Your task to perform on an android device: allow notifications from all sites in the chrome app Image 0: 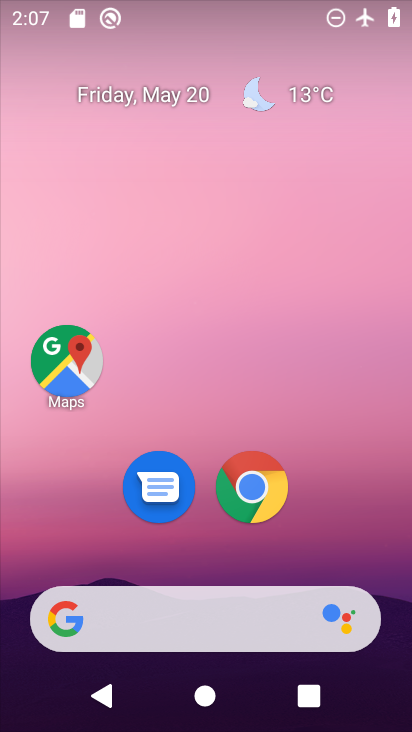
Step 0: press home button
Your task to perform on an android device: allow notifications from all sites in the chrome app Image 1: 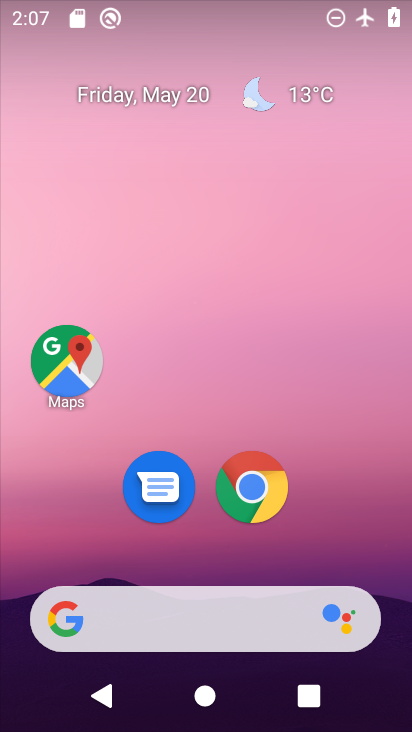
Step 1: press home button
Your task to perform on an android device: allow notifications from all sites in the chrome app Image 2: 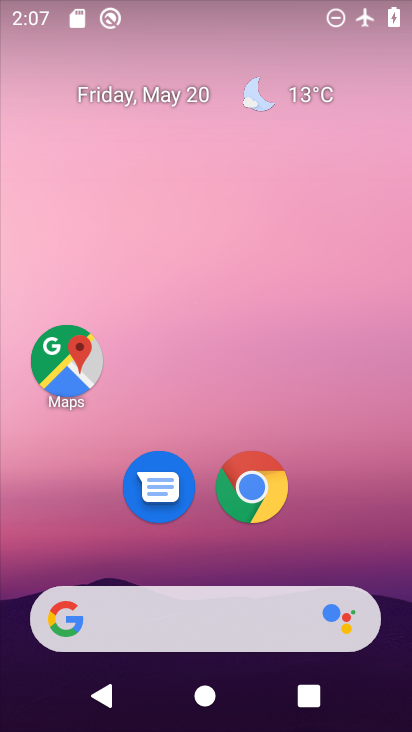
Step 2: click (251, 474)
Your task to perform on an android device: allow notifications from all sites in the chrome app Image 3: 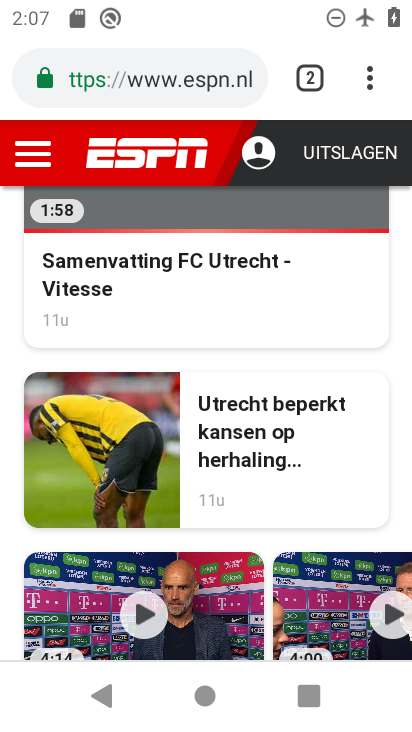
Step 3: click (365, 69)
Your task to perform on an android device: allow notifications from all sites in the chrome app Image 4: 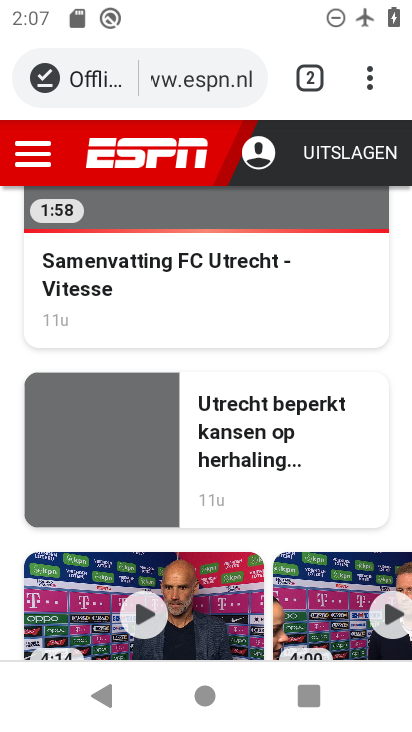
Step 4: click (371, 75)
Your task to perform on an android device: allow notifications from all sites in the chrome app Image 5: 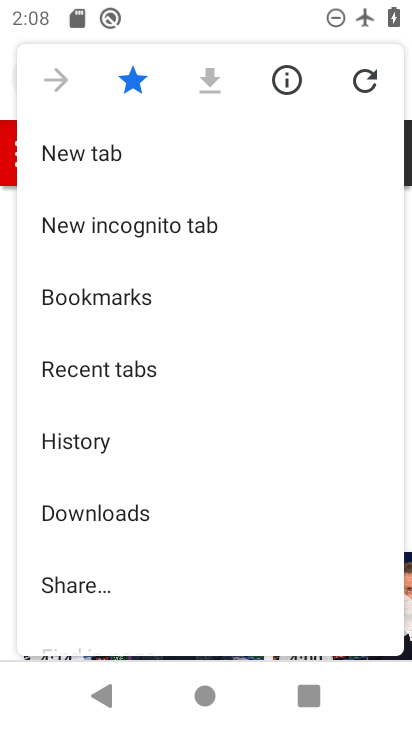
Step 5: drag from (198, 588) to (223, 69)
Your task to perform on an android device: allow notifications from all sites in the chrome app Image 6: 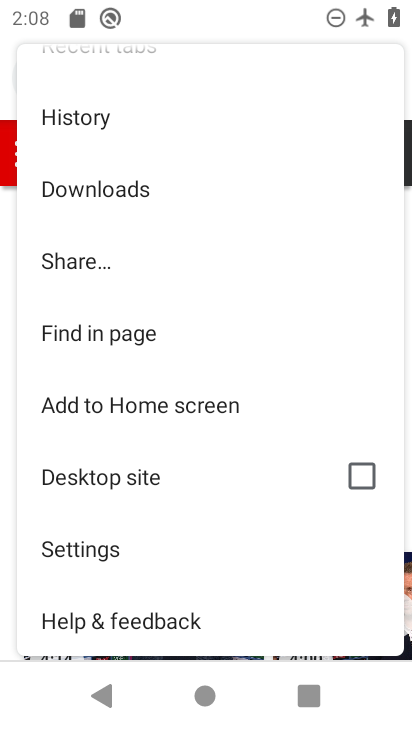
Step 6: click (123, 541)
Your task to perform on an android device: allow notifications from all sites in the chrome app Image 7: 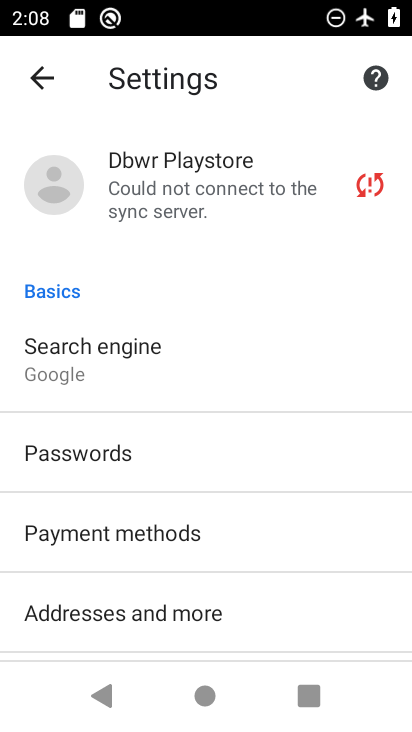
Step 7: drag from (242, 575) to (274, 287)
Your task to perform on an android device: allow notifications from all sites in the chrome app Image 8: 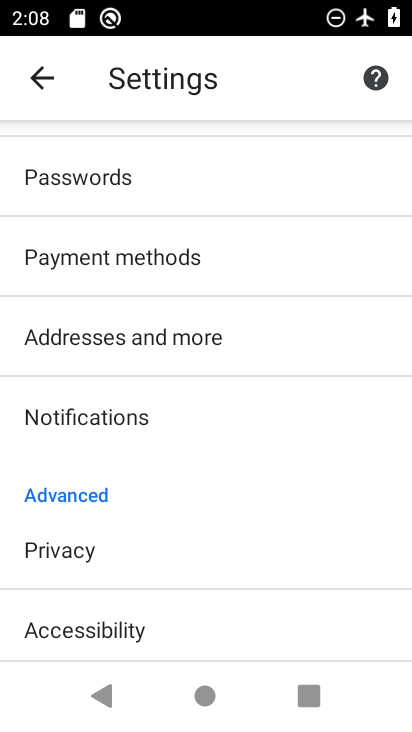
Step 8: drag from (232, 254) to (259, 206)
Your task to perform on an android device: allow notifications from all sites in the chrome app Image 9: 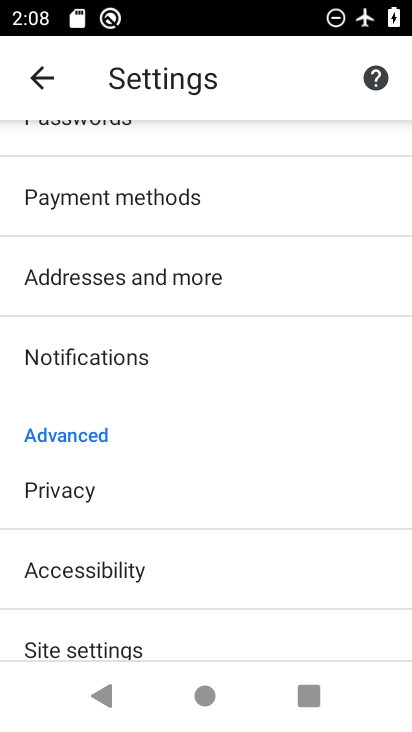
Step 9: drag from (244, 633) to (236, 392)
Your task to perform on an android device: allow notifications from all sites in the chrome app Image 10: 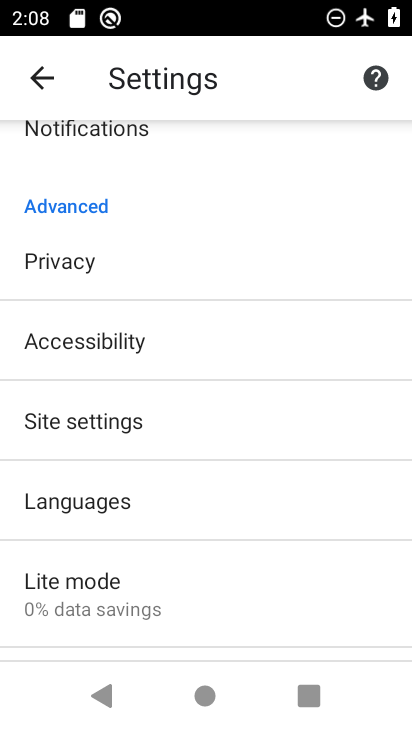
Step 10: click (177, 412)
Your task to perform on an android device: allow notifications from all sites in the chrome app Image 11: 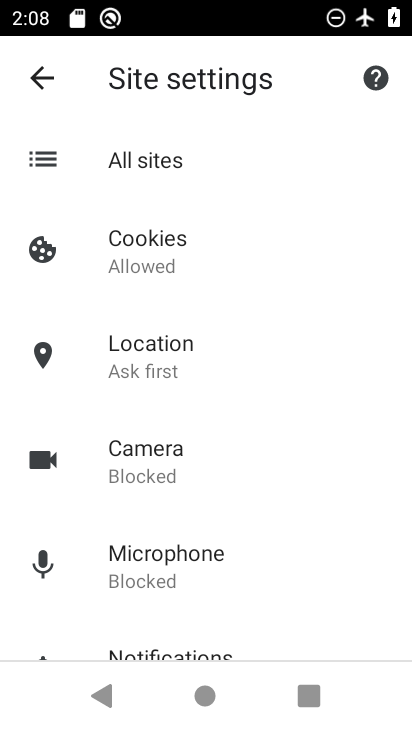
Step 11: click (196, 354)
Your task to perform on an android device: allow notifications from all sites in the chrome app Image 12: 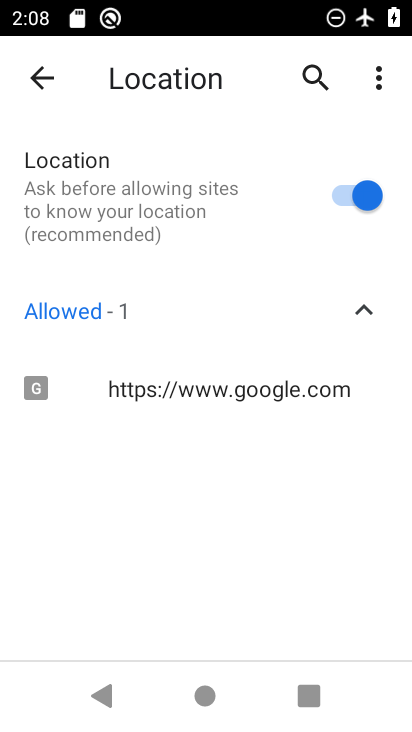
Step 12: click (223, 385)
Your task to perform on an android device: allow notifications from all sites in the chrome app Image 13: 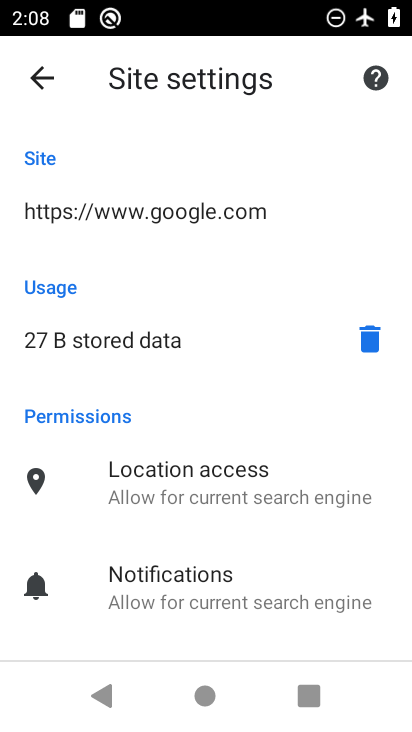
Step 13: task complete